Your task to perform on an android device: Go to ESPN.com Image 0: 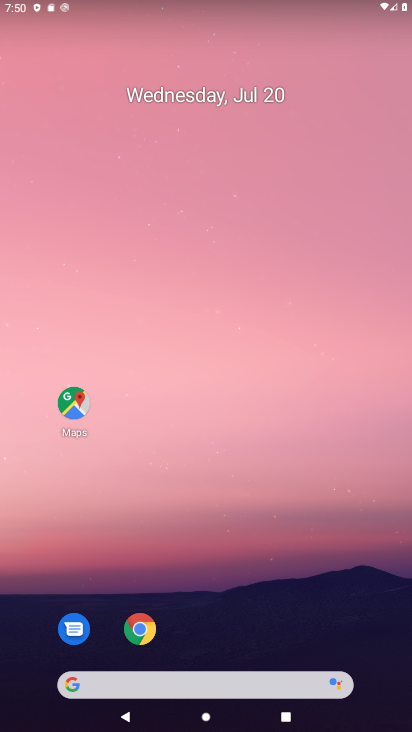
Step 0: drag from (319, 655) to (282, 395)
Your task to perform on an android device: Go to ESPN.com Image 1: 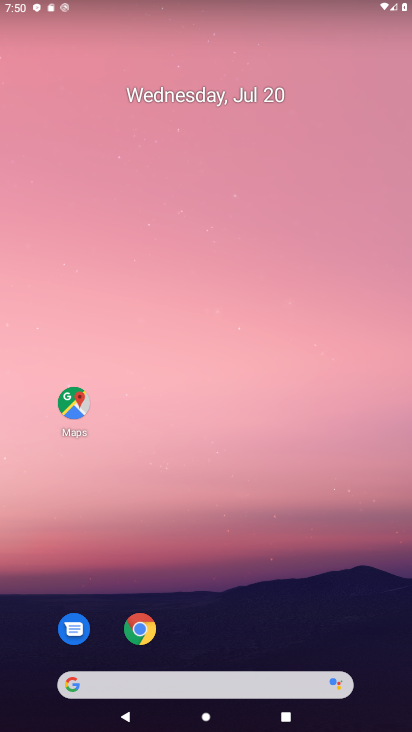
Step 1: drag from (235, 679) to (203, 330)
Your task to perform on an android device: Go to ESPN.com Image 2: 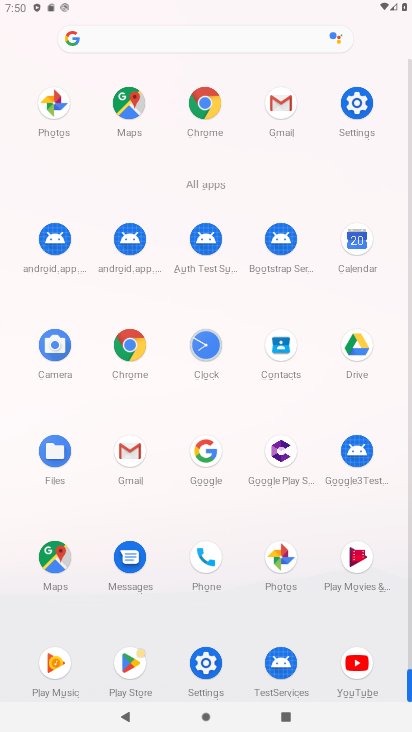
Step 2: click (208, 110)
Your task to perform on an android device: Go to ESPN.com Image 3: 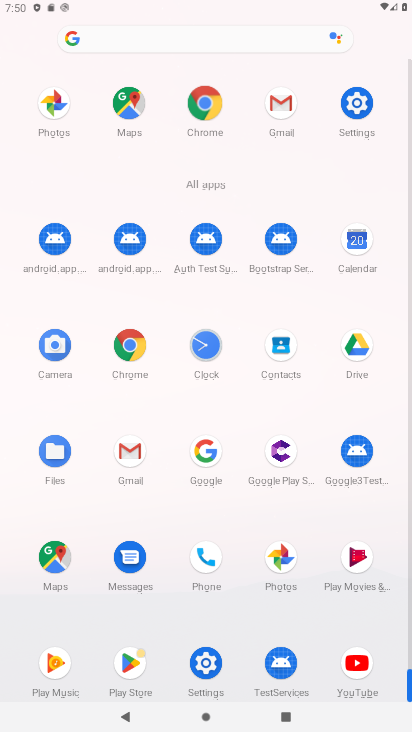
Step 3: click (207, 108)
Your task to perform on an android device: Go to ESPN.com Image 4: 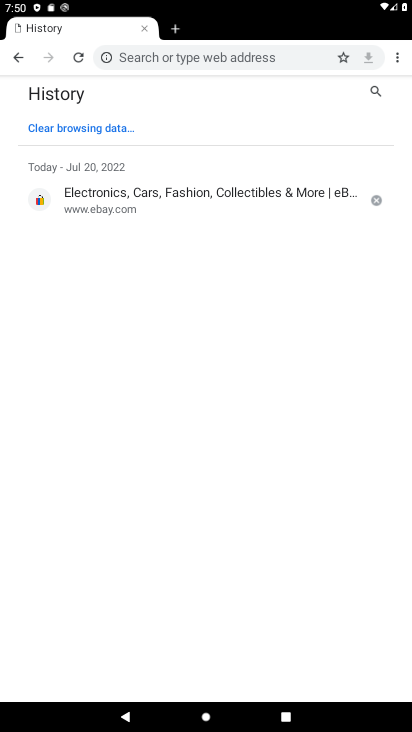
Step 4: drag from (399, 55) to (275, 56)
Your task to perform on an android device: Go to ESPN.com Image 5: 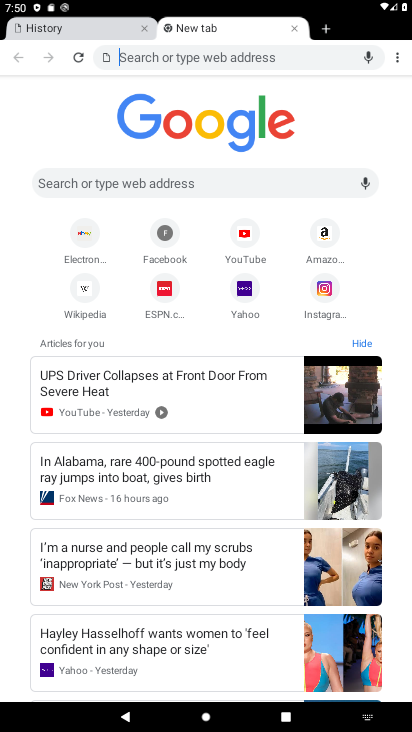
Step 5: click (80, 234)
Your task to perform on an android device: Go to ESPN.com Image 6: 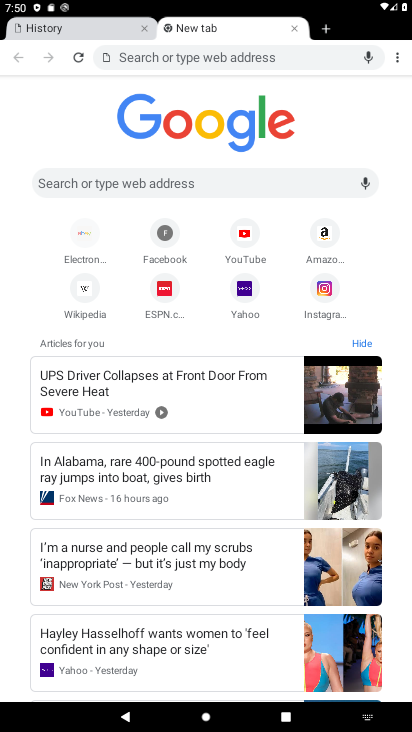
Step 6: click (84, 235)
Your task to perform on an android device: Go to ESPN.com Image 7: 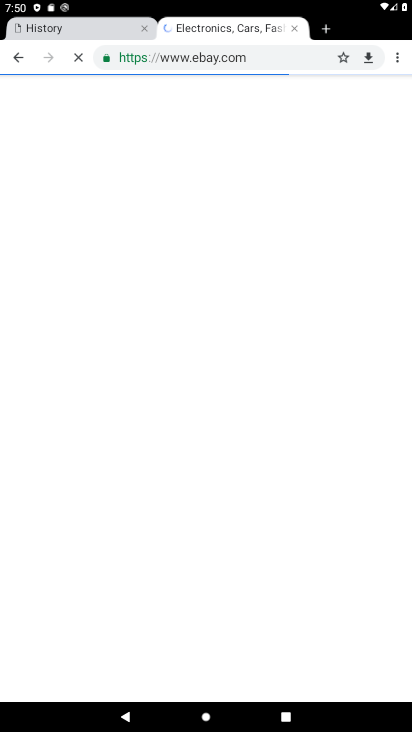
Step 7: click (144, 298)
Your task to perform on an android device: Go to ESPN.com Image 8: 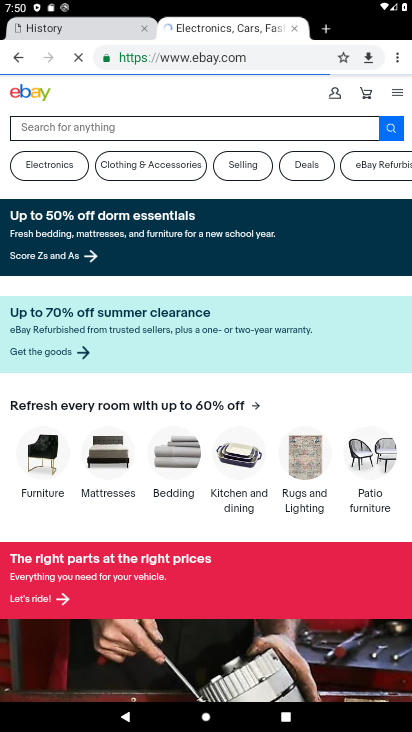
Step 8: click (149, 28)
Your task to perform on an android device: Go to ESPN.com Image 9: 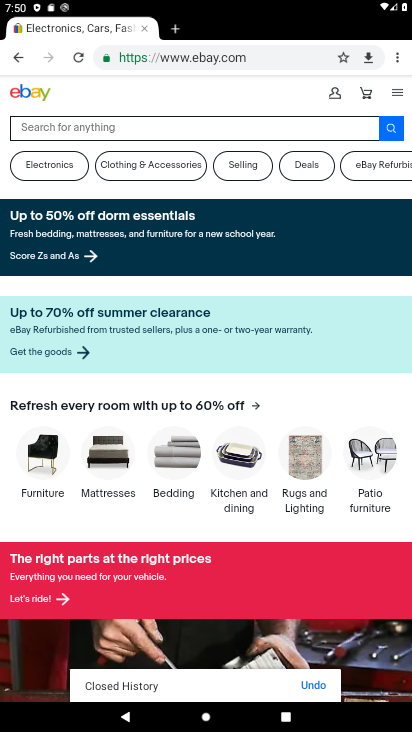
Step 9: drag from (392, 48) to (282, 56)
Your task to perform on an android device: Go to ESPN.com Image 10: 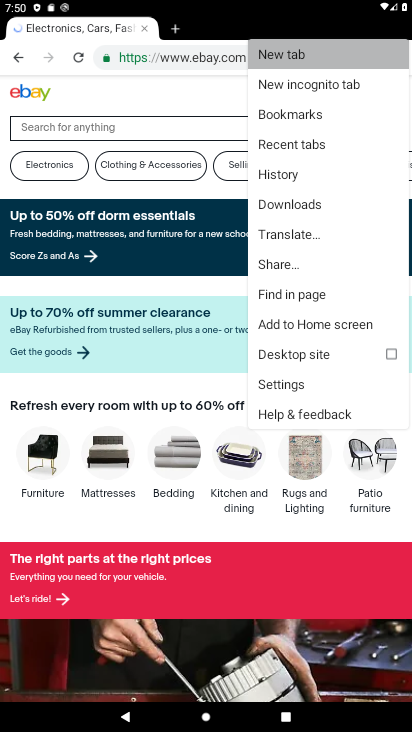
Step 10: click (281, 55)
Your task to perform on an android device: Go to ESPN.com Image 11: 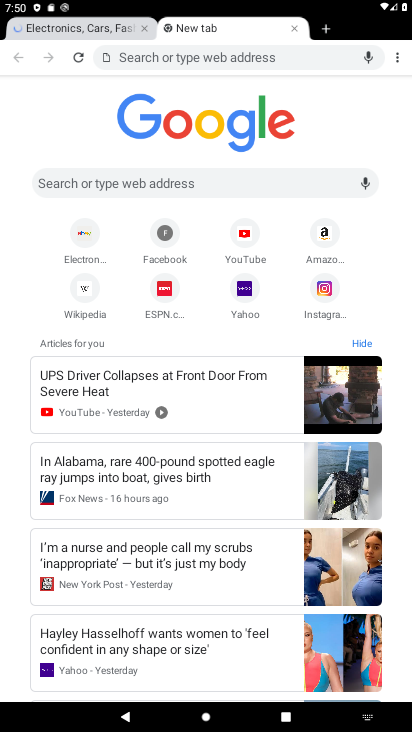
Step 11: click (165, 295)
Your task to perform on an android device: Go to ESPN.com Image 12: 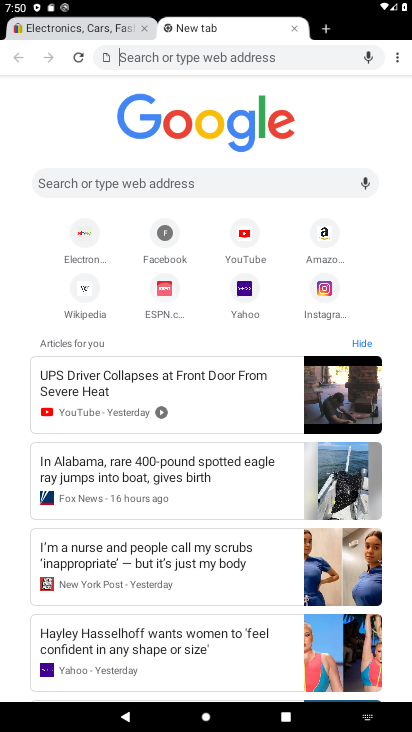
Step 12: click (165, 297)
Your task to perform on an android device: Go to ESPN.com Image 13: 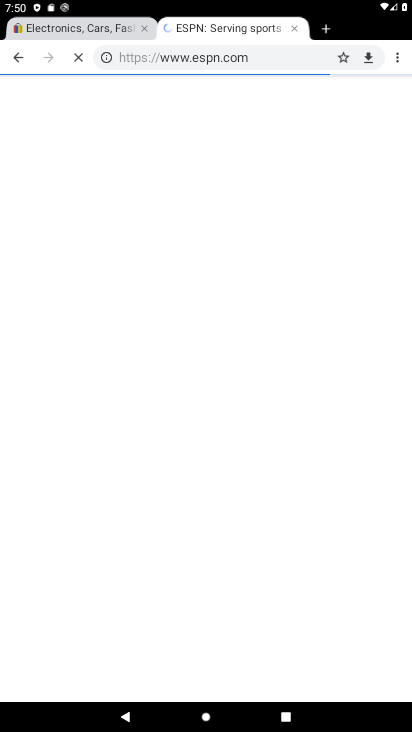
Step 13: task complete